Your task to perform on an android device: set the timer Image 0: 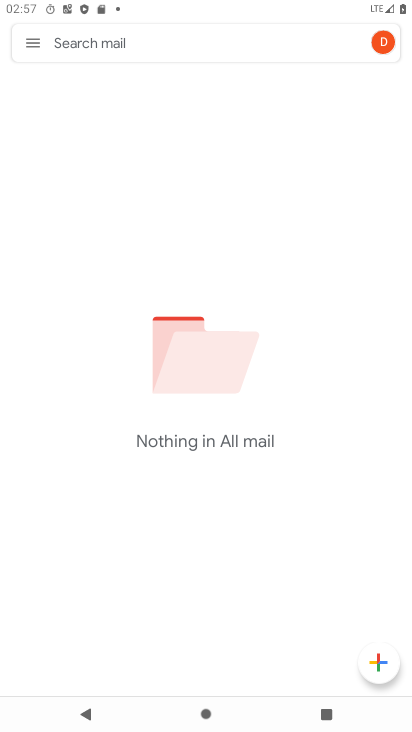
Step 0: press home button
Your task to perform on an android device: set the timer Image 1: 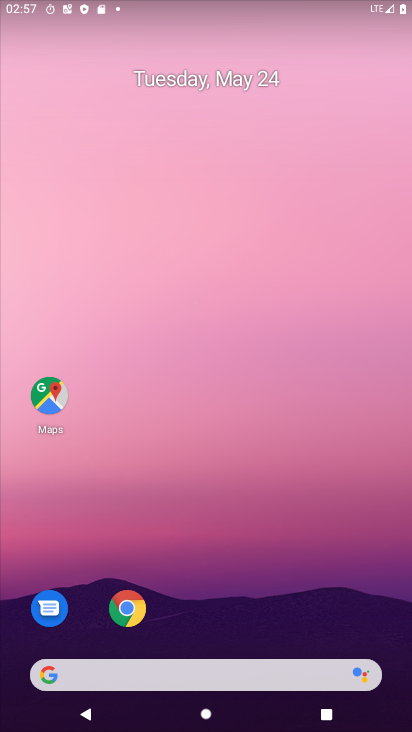
Step 1: drag from (233, 633) to (230, 68)
Your task to perform on an android device: set the timer Image 2: 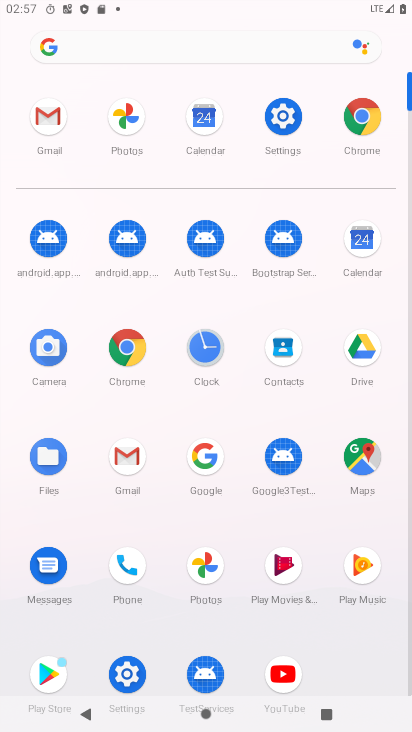
Step 2: click (205, 351)
Your task to perform on an android device: set the timer Image 3: 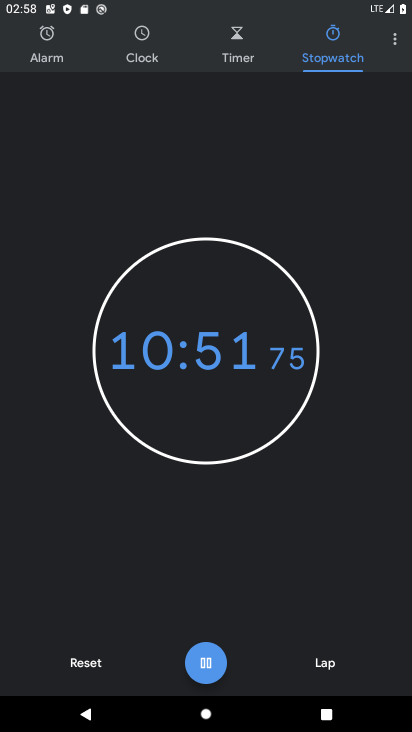
Step 3: click (240, 47)
Your task to perform on an android device: set the timer Image 4: 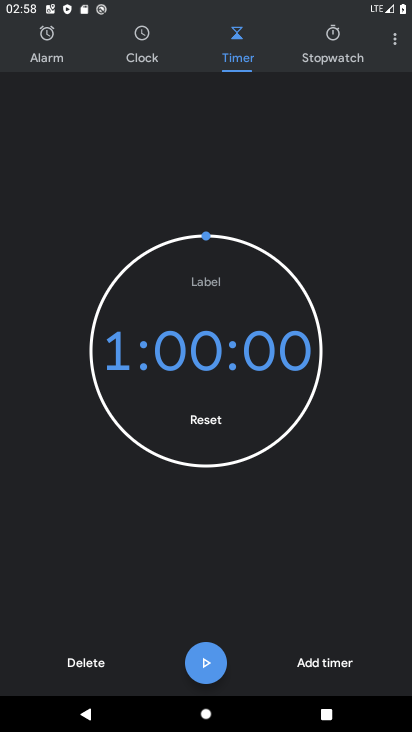
Step 4: click (217, 663)
Your task to perform on an android device: set the timer Image 5: 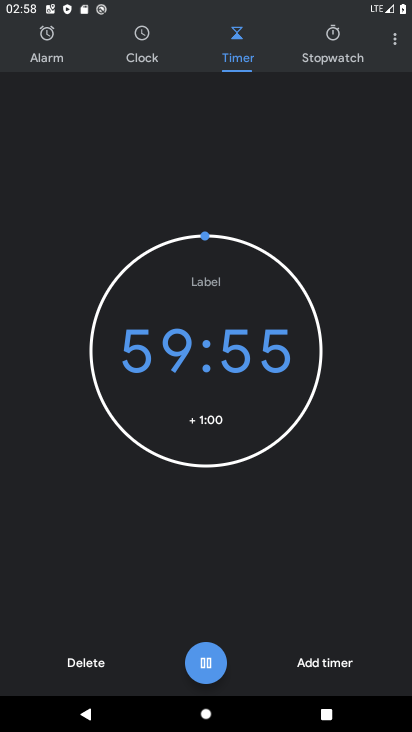
Step 5: task complete